Your task to perform on an android device: open a bookmark in the chrome app Image 0: 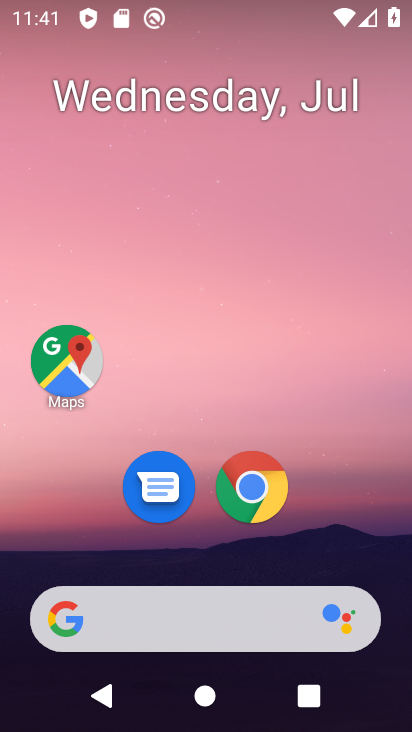
Step 0: drag from (262, 573) to (280, 217)
Your task to perform on an android device: open a bookmark in the chrome app Image 1: 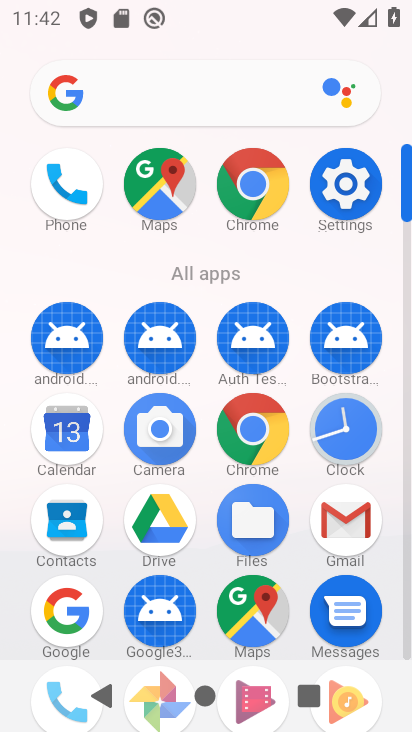
Step 1: click (267, 207)
Your task to perform on an android device: open a bookmark in the chrome app Image 2: 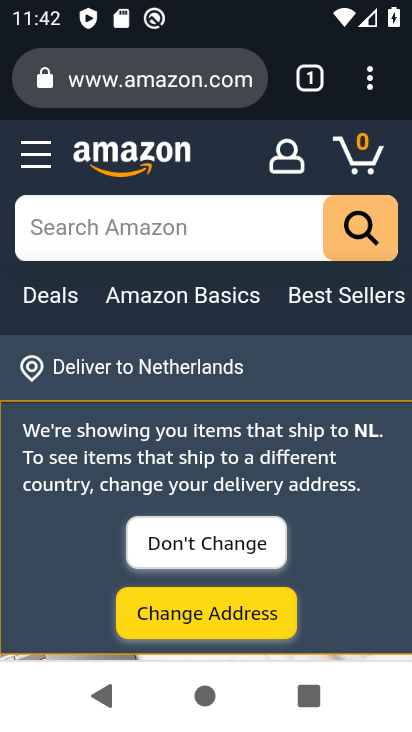
Step 2: click (370, 103)
Your task to perform on an android device: open a bookmark in the chrome app Image 3: 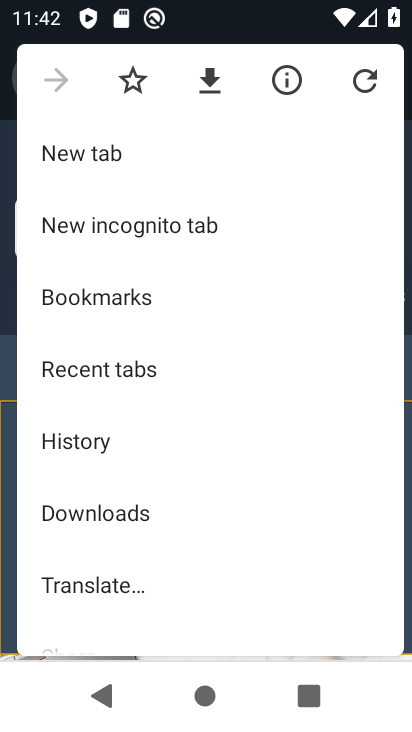
Step 3: click (125, 287)
Your task to perform on an android device: open a bookmark in the chrome app Image 4: 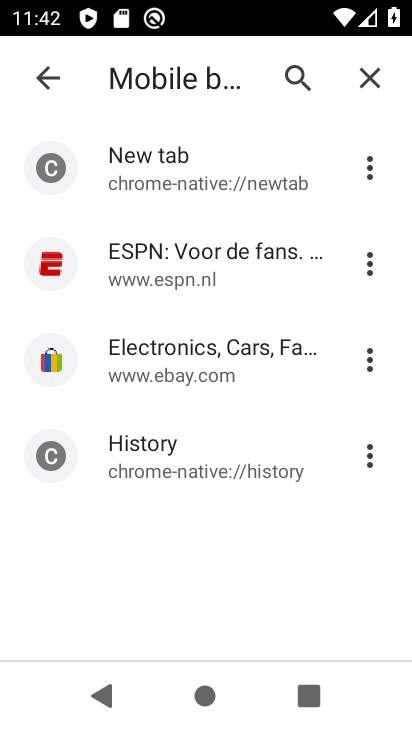
Step 4: click (185, 360)
Your task to perform on an android device: open a bookmark in the chrome app Image 5: 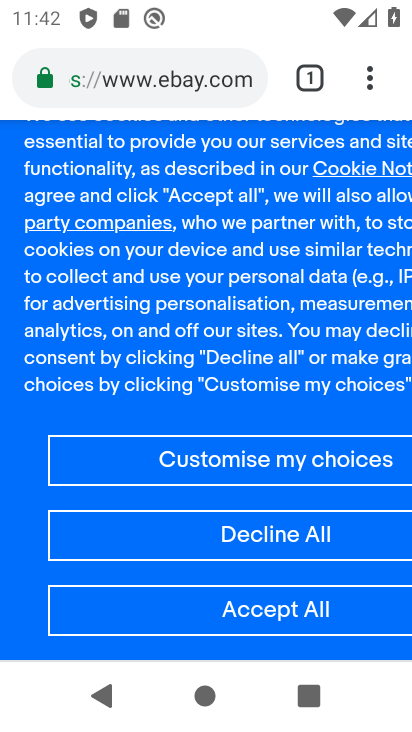
Step 5: task complete